Your task to perform on an android device: install app "ZOOM Cloud Meetings" Image 0: 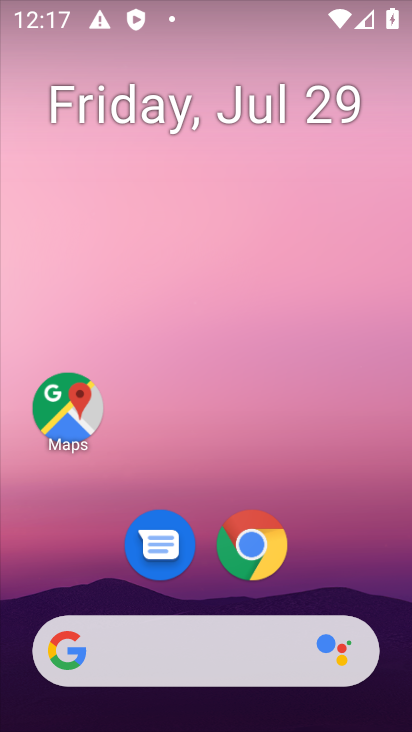
Step 0: drag from (253, 694) to (265, 517)
Your task to perform on an android device: install app "ZOOM Cloud Meetings" Image 1: 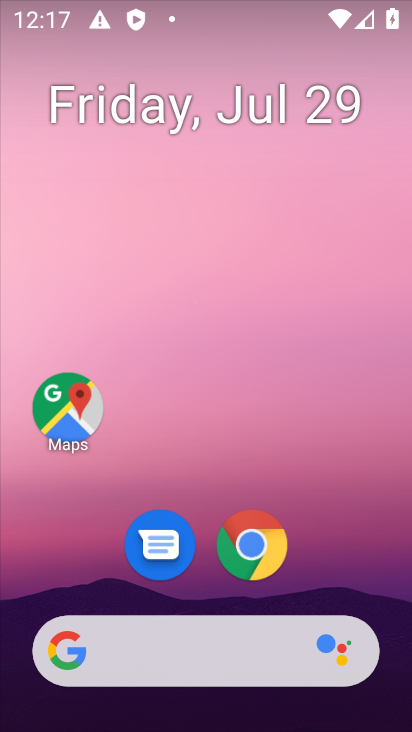
Step 1: drag from (116, 621) to (243, 83)
Your task to perform on an android device: install app "ZOOM Cloud Meetings" Image 2: 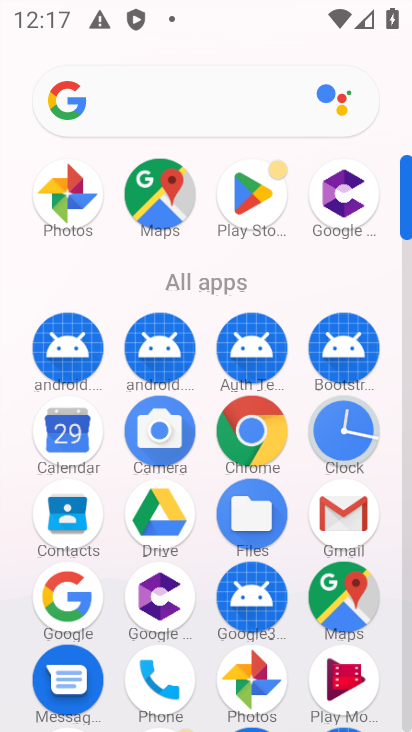
Step 2: click (238, 205)
Your task to perform on an android device: install app "ZOOM Cloud Meetings" Image 3: 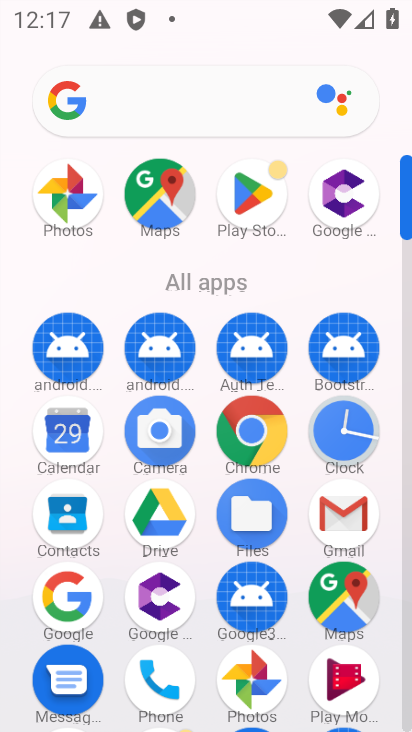
Step 3: click (238, 205)
Your task to perform on an android device: install app "ZOOM Cloud Meetings" Image 4: 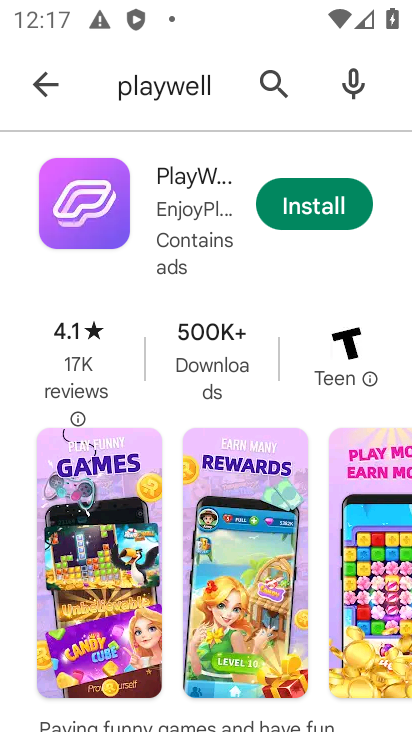
Step 4: click (252, 81)
Your task to perform on an android device: install app "ZOOM Cloud Meetings" Image 5: 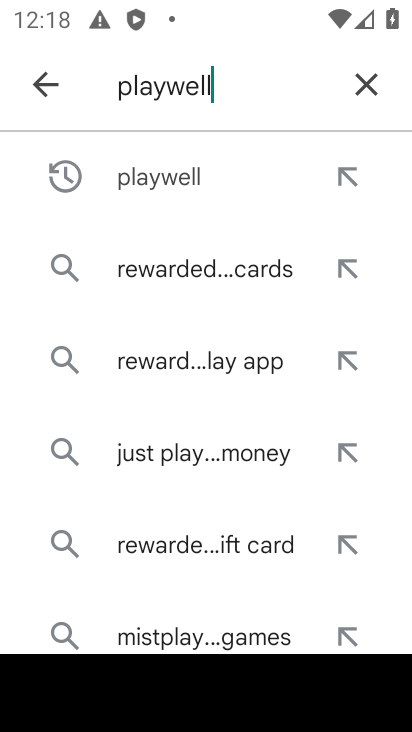
Step 5: click (370, 72)
Your task to perform on an android device: install app "ZOOM Cloud Meetings" Image 6: 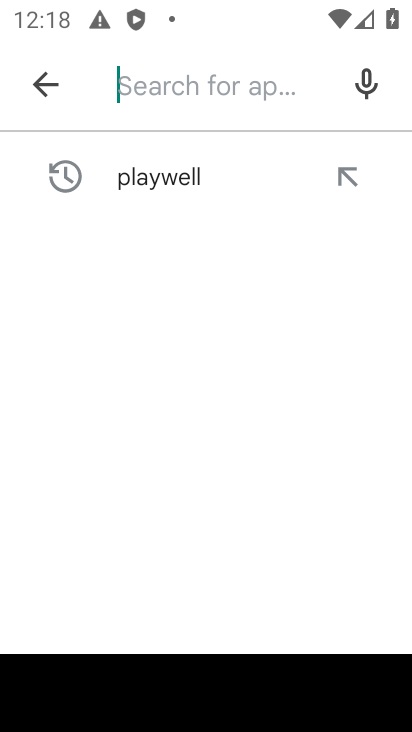
Step 6: type "ZOOM Cloud Meetings"
Your task to perform on an android device: install app "ZOOM Cloud Meetings" Image 7: 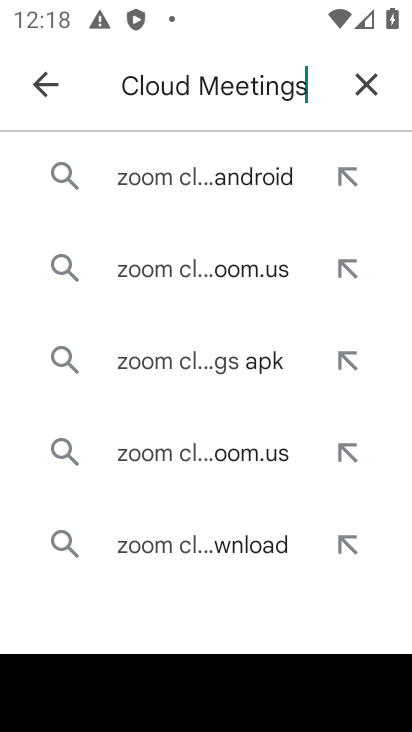
Step 7: press enter
Your task to perform on an android device: install app "ZOOM Cloud Meetings" Image 8: 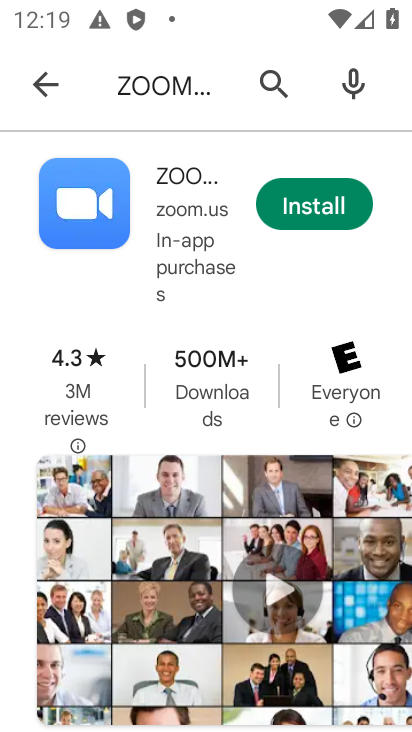
Step 8: click (319, 220)
Your task to perform on an android device: install app "ZOOM Cloud Meetings" Image 9: 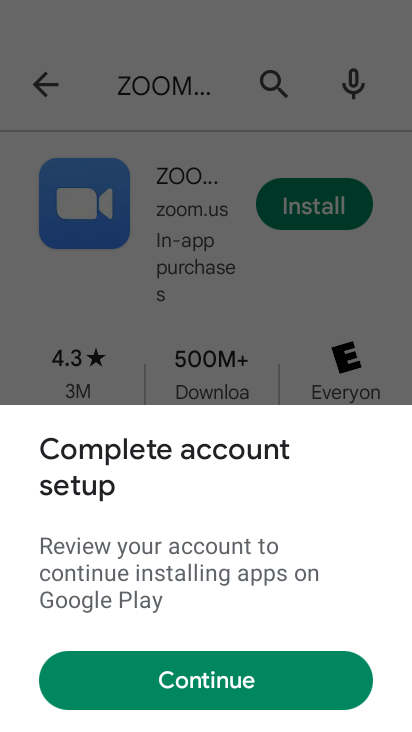
Step 9: click (246, 685)
Your task to perform on an android device: install app "ZOOM Cloud Meetings" Image 10: 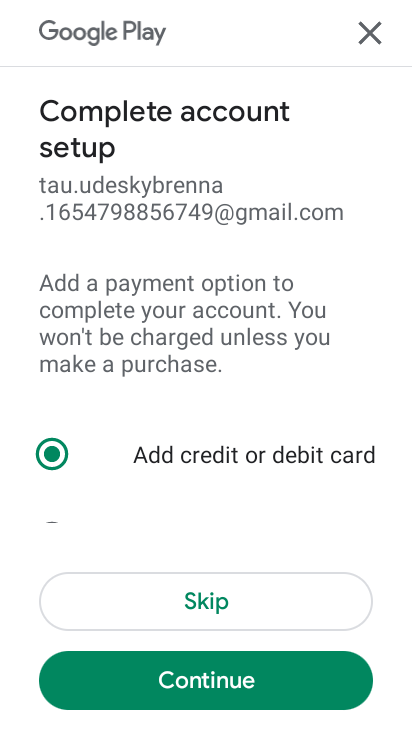
Step 10: click (230, 615)
Your task to perform on an android device: install app "ZOOM Cloud Meetings" Image 11: 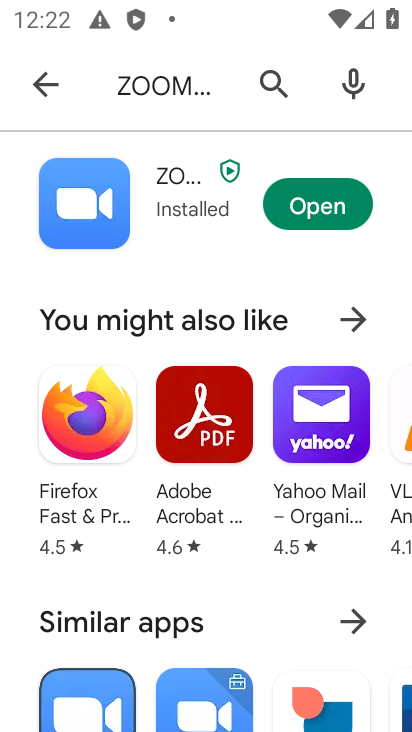
Step 11: task complete